Your task to perform on an android device: stop showing notifications on the lock screen Image 0: 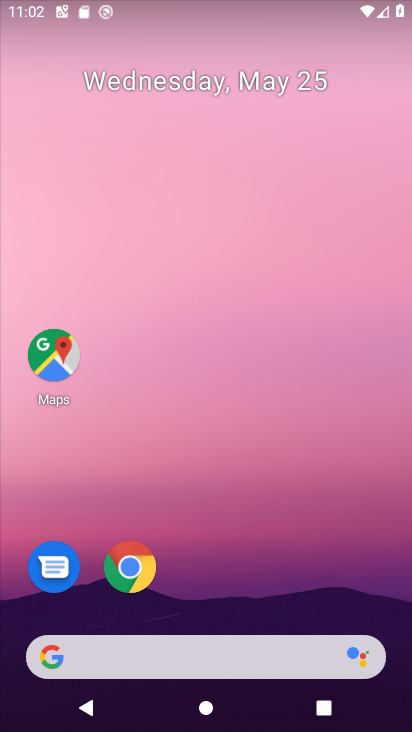
Step 0: drag from (273, 587) to (299, 6)
Your task to perform on an android device: stop showing notifications on the lock screen Image 1: 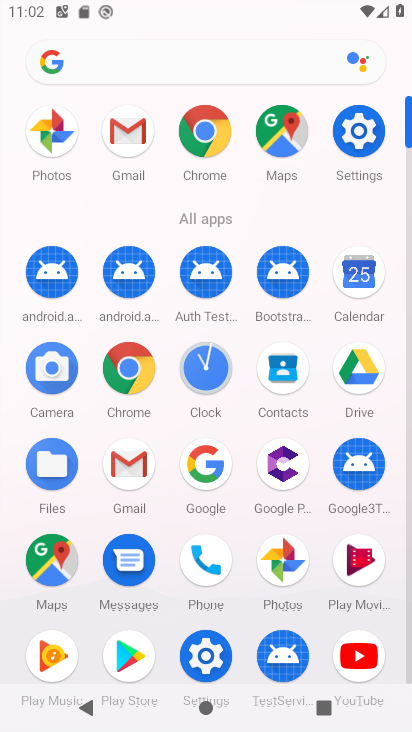
Step 1: click (360, 118)
Your task to perform on an android device: stop showing notifications on the lock screen Image 2: 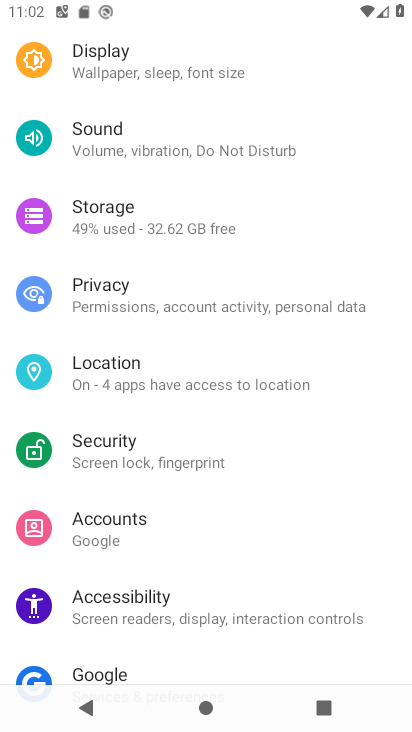
Step 2: drag from (223, 262) to (223, 590)
Your task to perform on an android device: stop showing notifications on the lock screen Image 3: 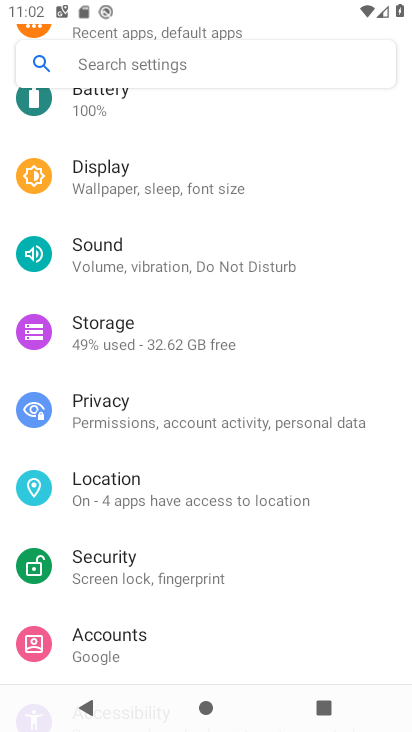
Step 3: drag from (239, 130) to (222, 423)
Your task to perform on an android device: stop showing notifications on the lock screen Image 4: 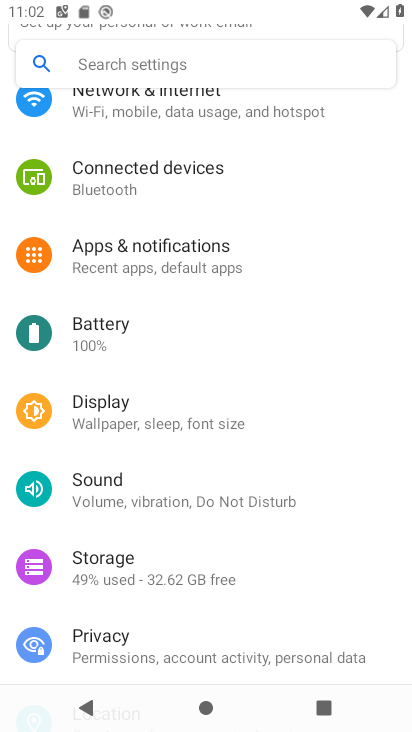
Step 4: click (190, 248)
Your task to perform on an android device: stop showing notifications on the lock screen Image 5: 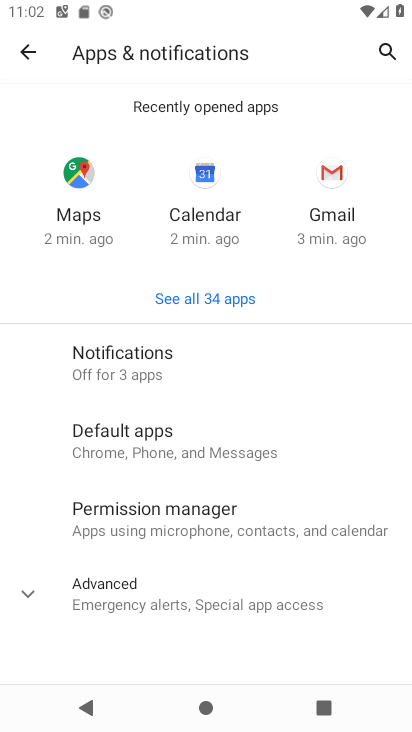
Step 5: click (176, 362)
Your task to perform on an android device: stop showing notifications on the lock screen Image 6: 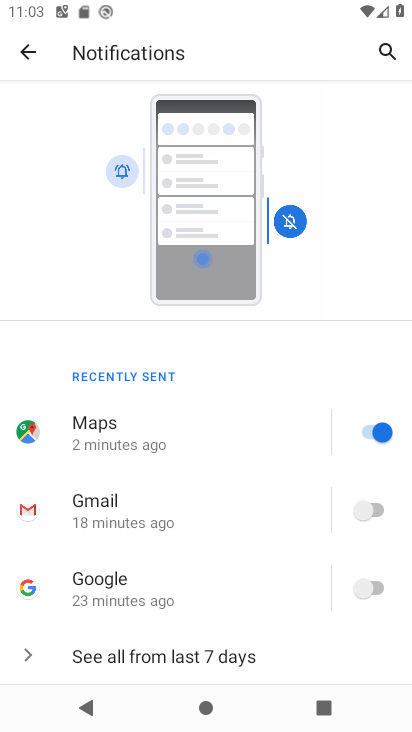
Step 6: drag from (244, 592) to (267, 255)
Your task to perform on an android device: stop showing notifications on the lock screen Image 7: 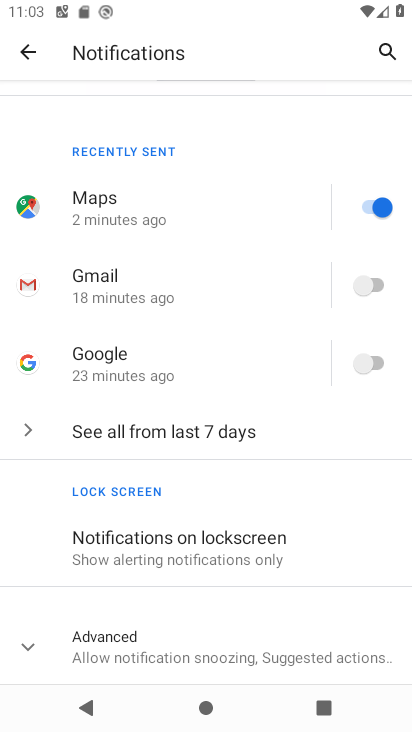
Step 7: click (193, 557)
Your task to perform on an android device: stop showing notifications on the lock screen Image 8: 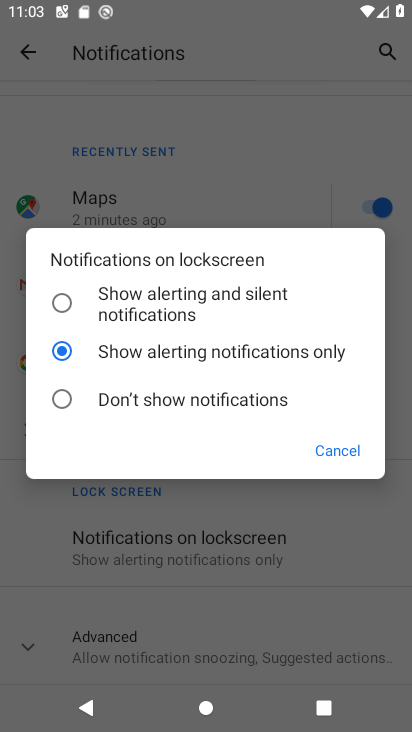
Step 8: click (69, 392)
Your task to perform on an android device: stop showing notifications on the lock screen Image 9: 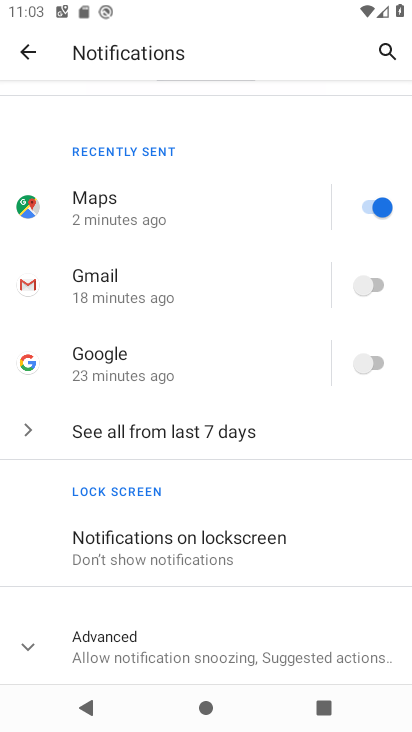
Step 9: task complete